Your task to perform on an android device: check data usage Image 0: 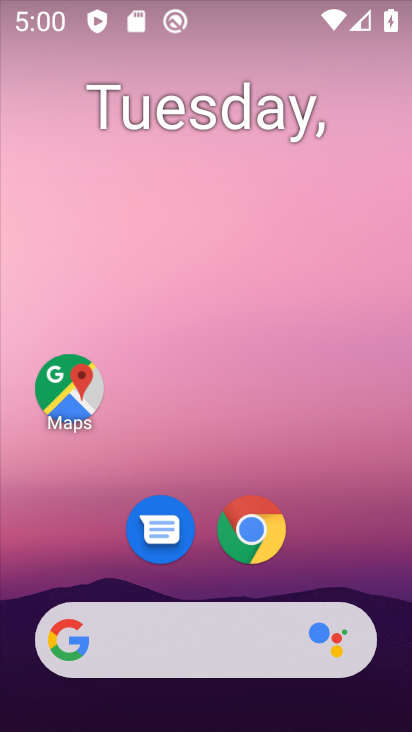
Step 0: drag from (347, 569) to (317, 173)
Your task to perform on an android device: check data usage Image 1: 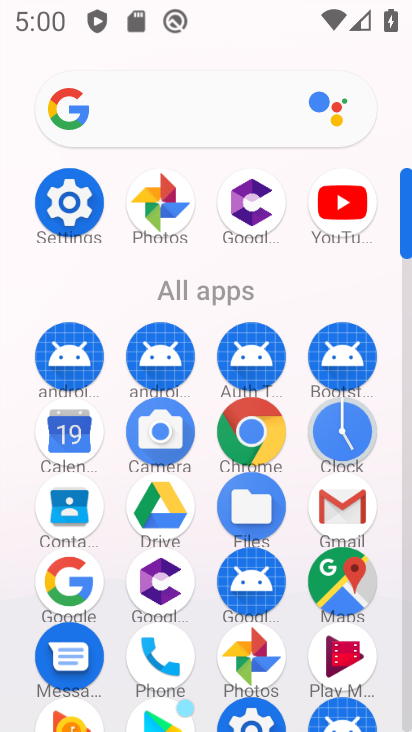
Step 1: click (74, 212)
Your task to perform on an android device: check data usage Image 2: 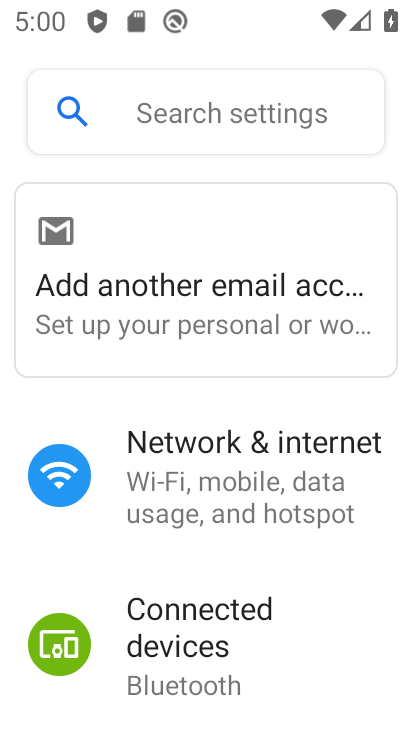
Step 2: drag from (340, 658) to (301, 275)
Your task to perform on an android device: check data usage Image 3: 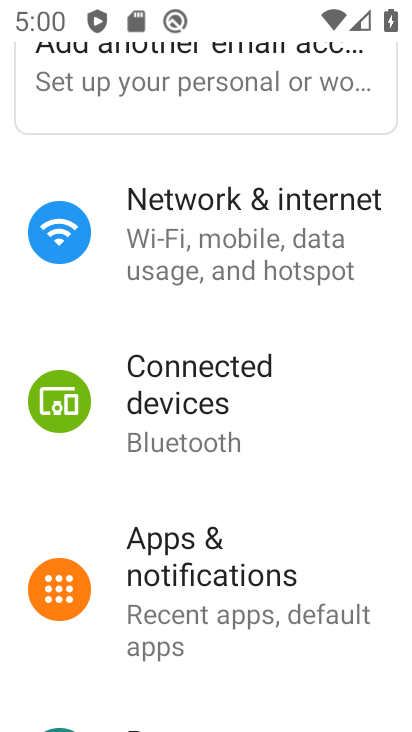
Step 3: click (135, 218)
Your task to perform on an android device: check data usage Image 4: 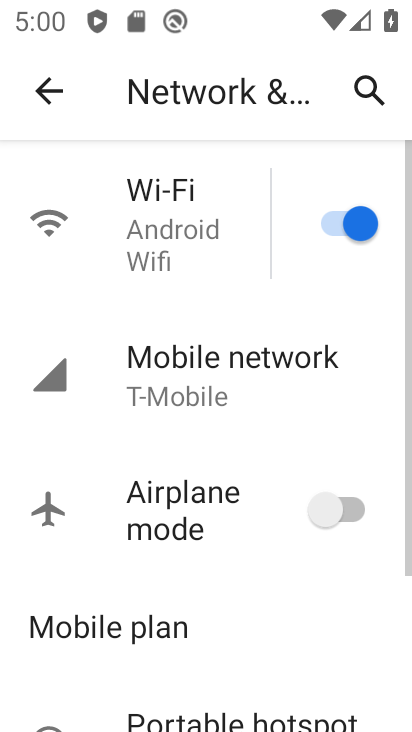
Step 4: click (153, 373)
Your task to perform on an android device: check data usage Image 5: 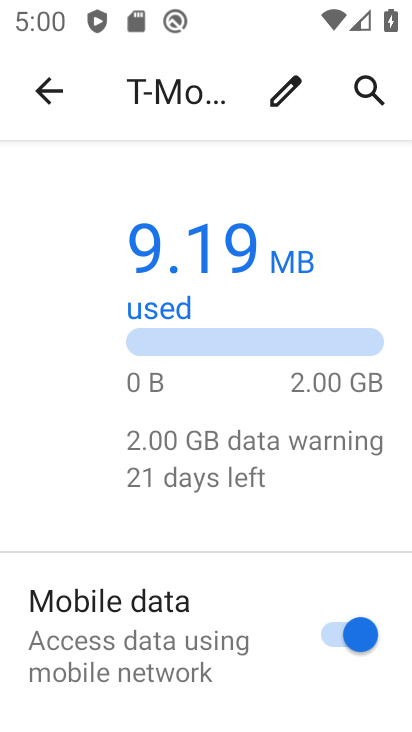
Step 5: task complete